Your task to perform on an android device: Toggle the flashlight Image 0: 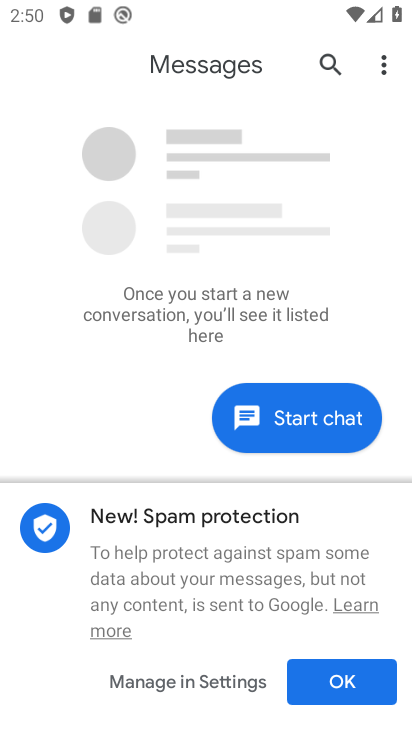
Step 0: drag from (284, 8) to (252, 555)
Your task to perform on an android device: Toggle the flashlight Image 1: 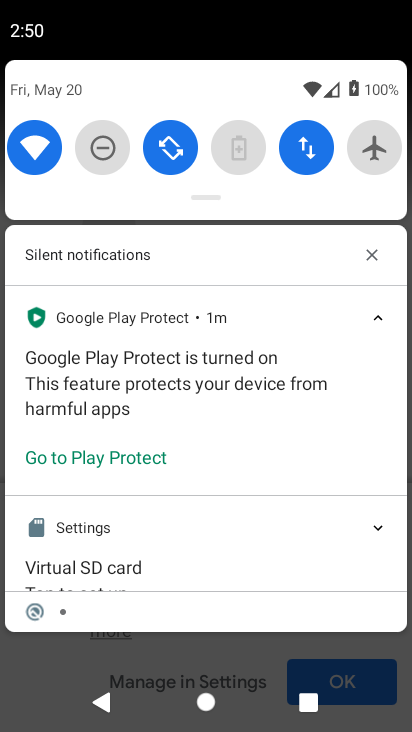
Step 1: drag from (205, 187) to (209, 608)
Your task to perform on an android device: Toggle the flashlight Image 2: 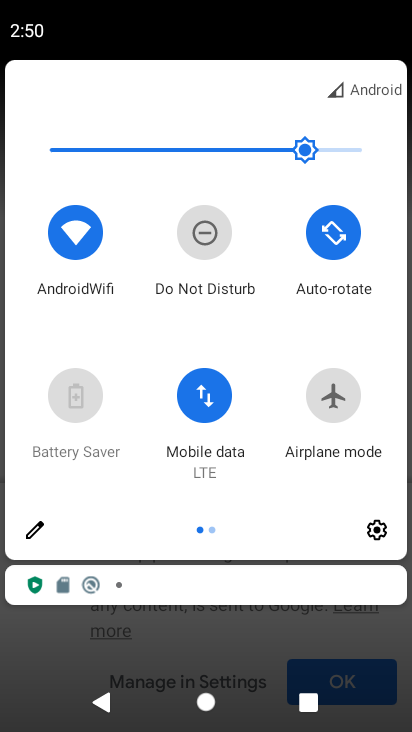
Step 2: click (40, 526)
Your task to perform on an android device: Toggle the flashlight Image 3: 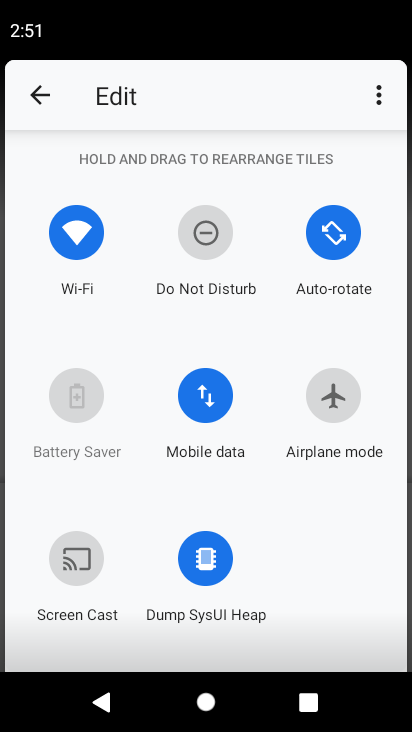
Step 3: task complete